Your task to perform on an android device: Open CNN.com Image 0: 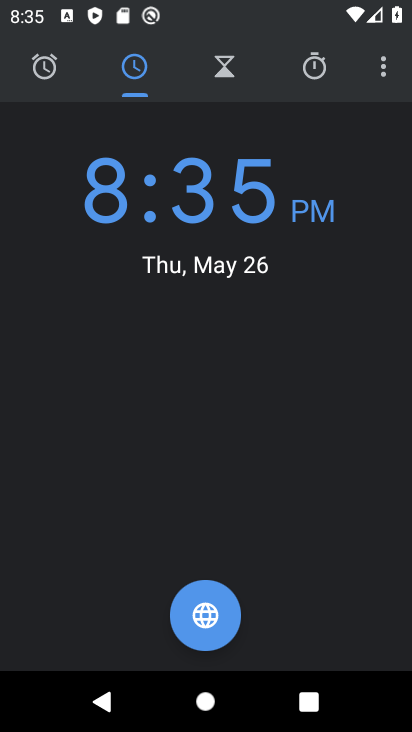
Step 0: press home button
Your task to perform on an android device: Open CNN.com Image 1: 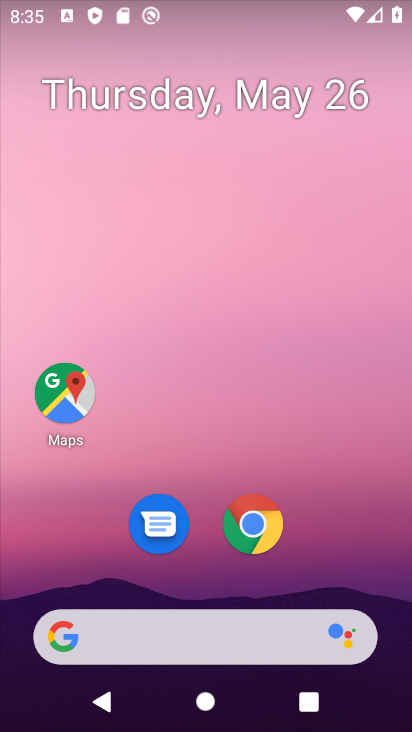
Step 1: click (235, 633)
Your task to perform on an android device: Open CNN.com Image 2: 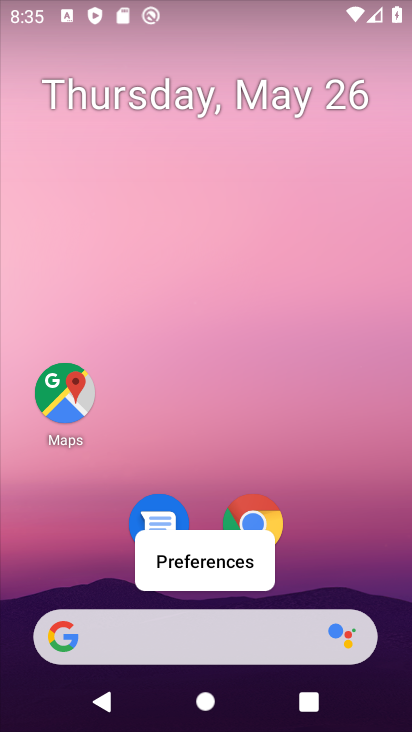
Step 2: click (164, 651)
Your task to perform on an android device: Open CNN.com Image 3: 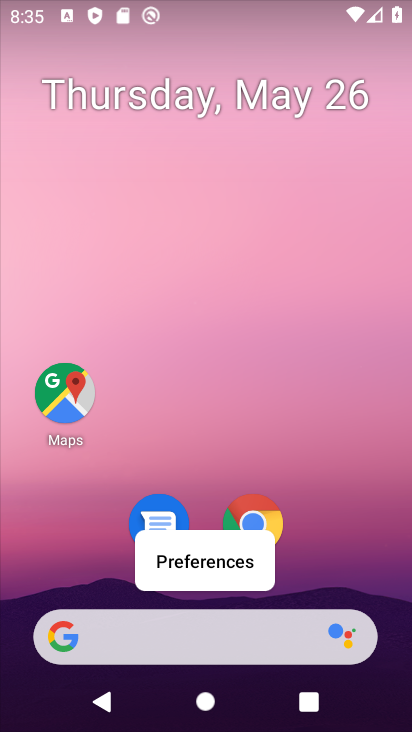
Step 3: click (152, 646)
Your task to perform on an android device: Open CNN.com Image 4: 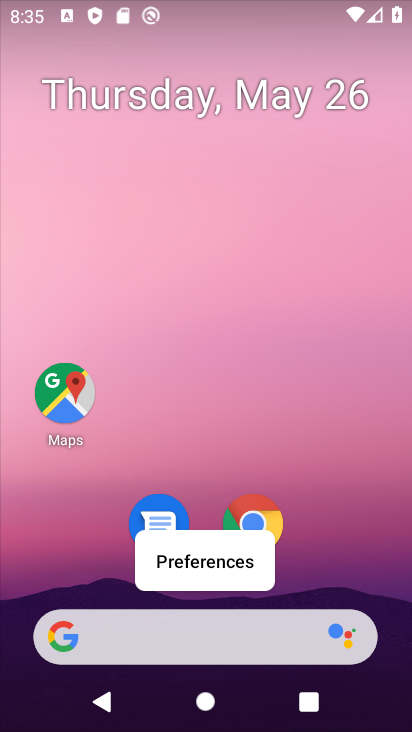
Step 4: click (274, 627)
Your task to perform on an android device: Open CNN.com Image 5: 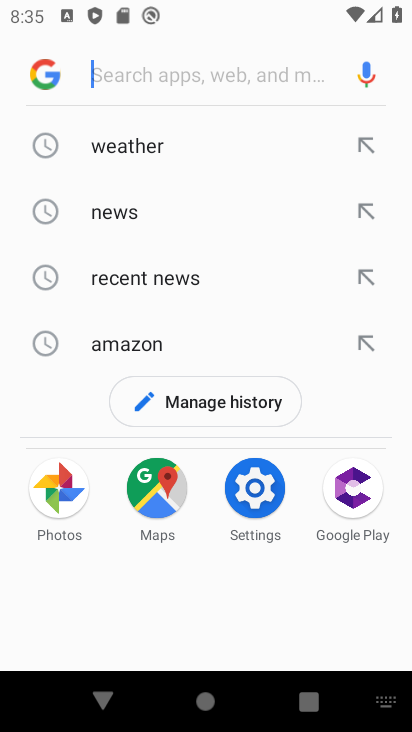
Step 5: type "cnn.com"
Your task to perform on an android device: Open CNN.com Image 6: 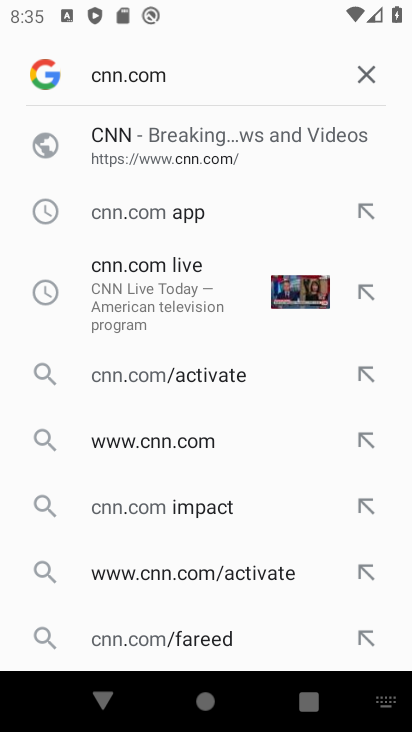
Step 6: click (196, 140)
Your task to perform on an android device: Open CNN.com Image 7: 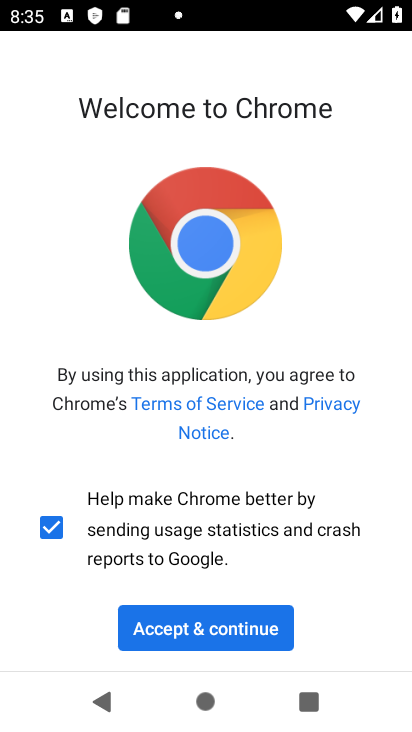
Step 7: click (248, 631)
Your task to perform on an android device: Open CNN.com Image 8: 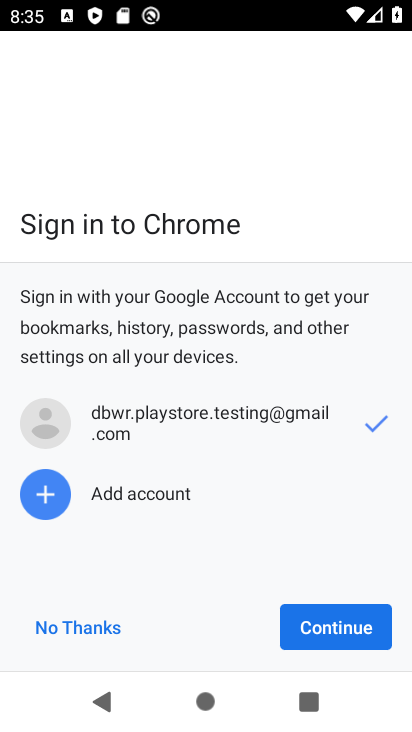
Step 8: click (309, 631)
Your task to perform on an android device: Open CNN.com Image 9: 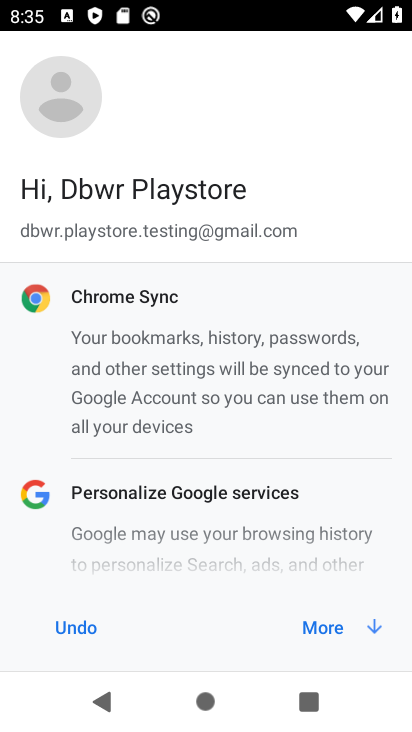
Step 9: click (315, 622)
Your task to perform on an android device: Open CNN.com Image 10: 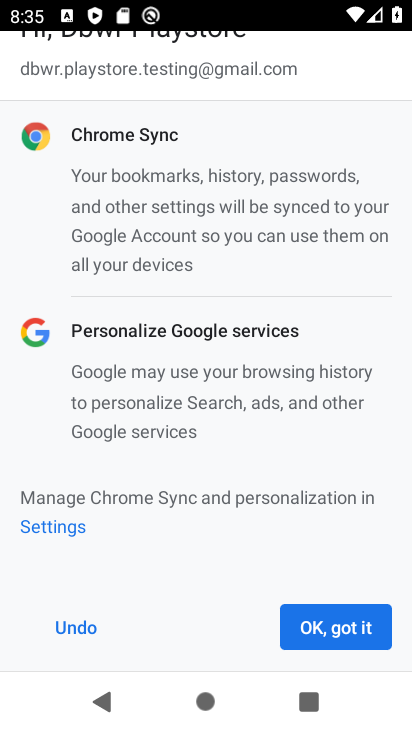
Step 10: click (315, 623)
Your task to perform on an android device: Open CNN.com Image 11: 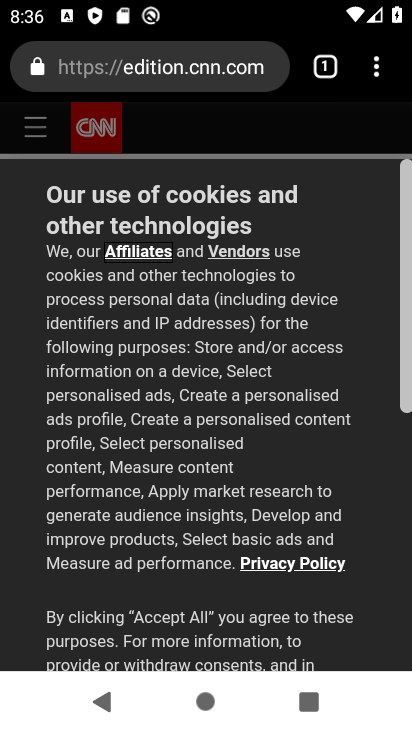
Step 11: drag from (259, 574) to (326, 158)
Your task to perform on an android device: Open CNN.com Image 12: 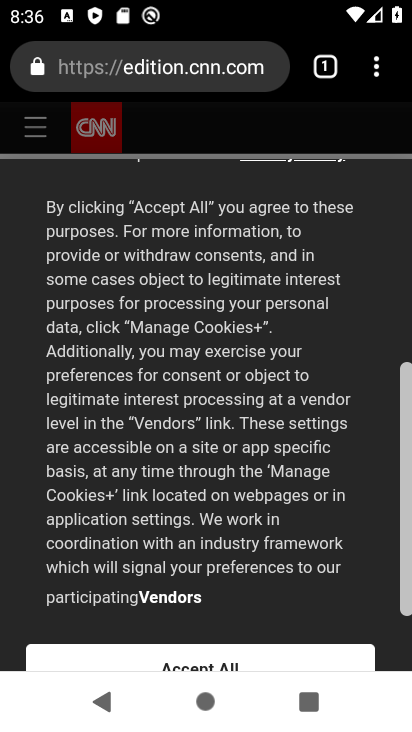
Step 12: drag from (210, 562) to (207, 278)
Your task to perform on an android device: Open CNN.com Image 13: 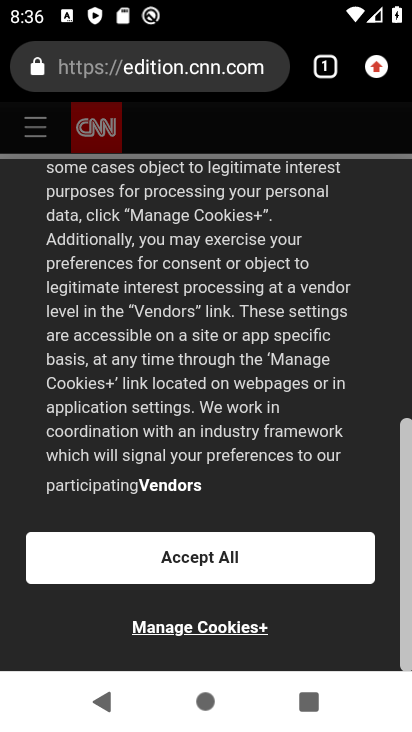
Step 13: click (212, 557)
Your task to perform on an android device: Open CNN.com Image 14: 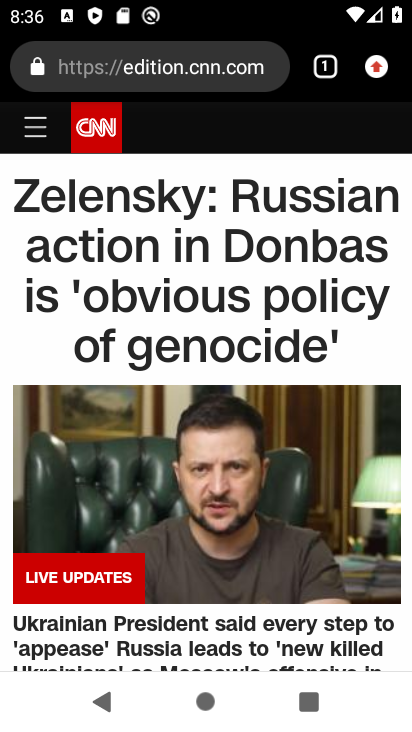
Step 14: task complete